Your task to perform on an android device: Open Youtube and go to the subscriptions tab Image 0: 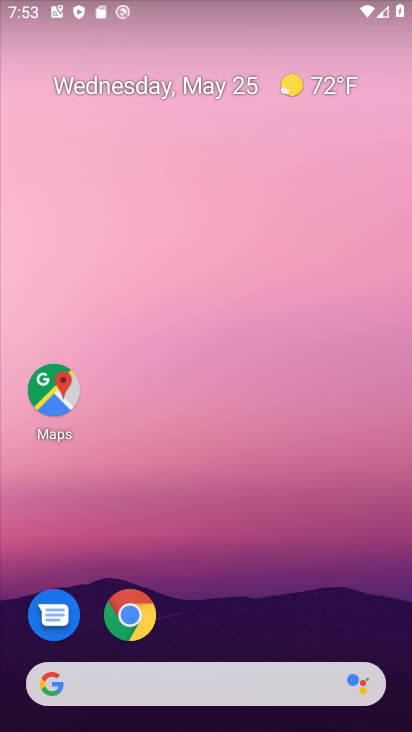
Step 0: drag from (230, 557) to (237, 33)
Your task to perform on an android device: Open Youtube and go to the subscriptions tab Image 1: 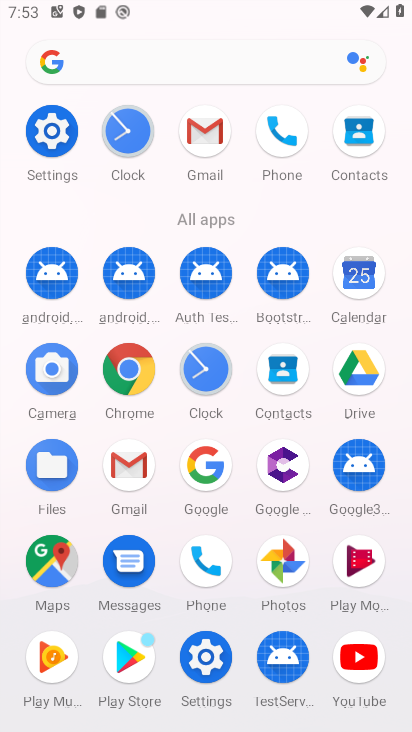
Step 1: click (358, 657)
Your task to perform on an android device: Open Youtube and go to the subscriptions tab Image 2: 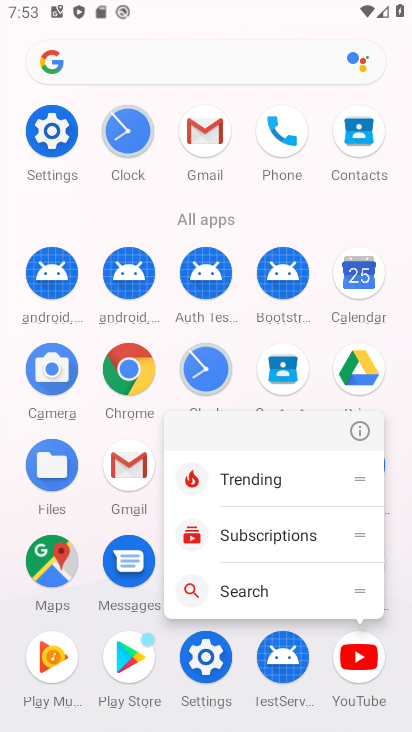
Step 2: click (358, 655)
Your task to perform on an android device: Open Youtube and go to the subscriptions tab Image 3: 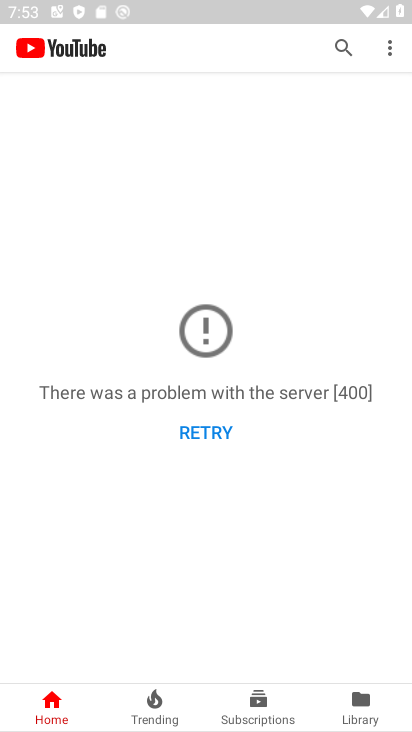
Step 3: click (255, 703)
Your task to perform on an android device: Open Youtube and go to the subscriptions tab Image 4: 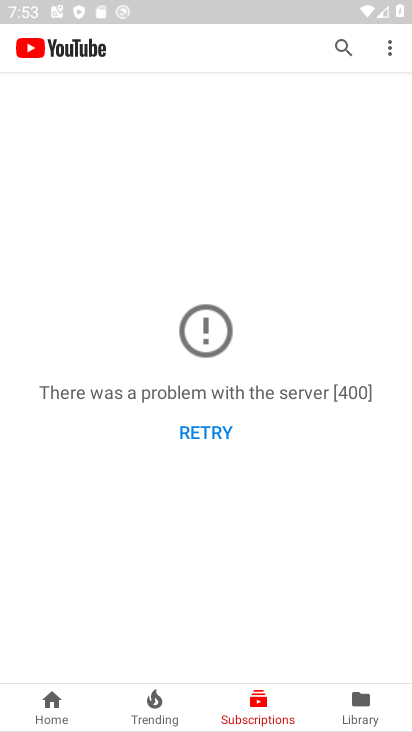
Step 4: click (257, 697)
Your task to perform on an android device: Open Youtube and go to the subscriptions tab Image 5: 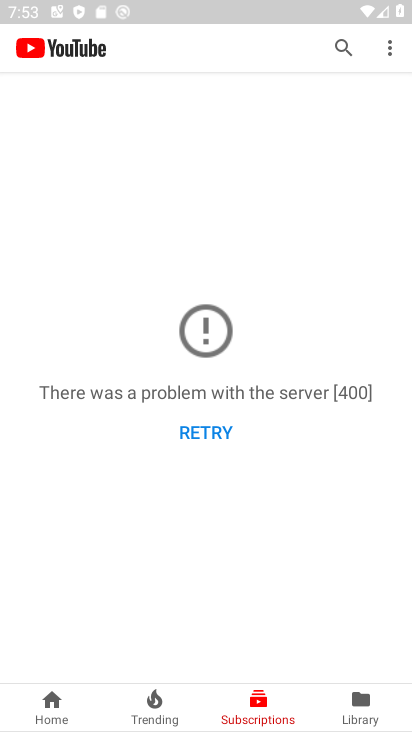
Step 5: click (214, 427)
Your task to perform on an android device: Open Youtube and go to the subscriptions tab Image 6: 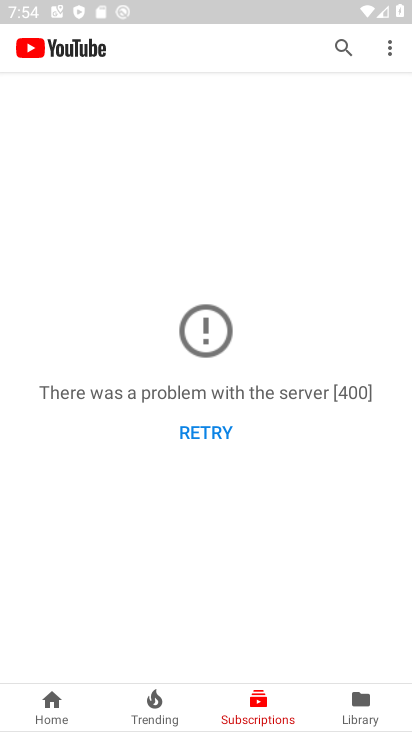
Step 6: click (214, 427)
Your task to perform on an android device: Open Youtube and go to the subscriptions tab Image 7: 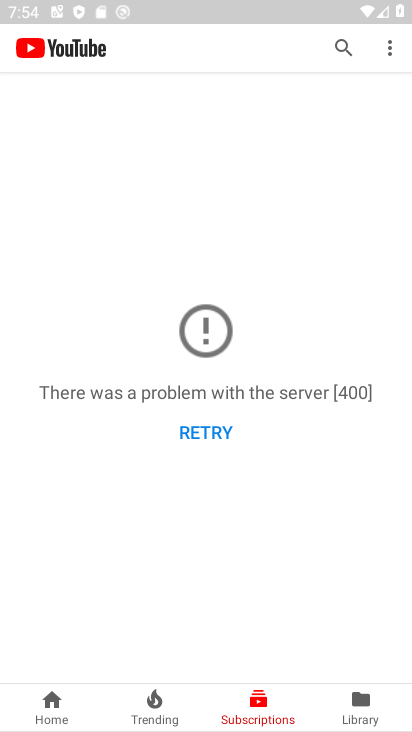
Step 7: task complete